Your task to perform on an android device: check the backup settings in the google photos Image 0: 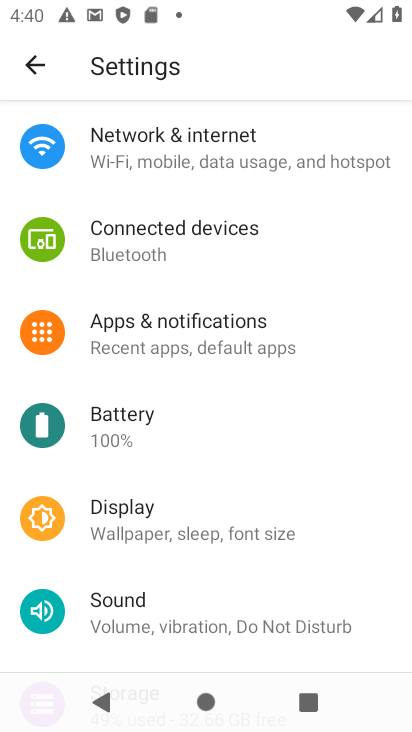
Step 0: press home button
Your task to perform on an android device: check the backup settings in the google photos Image 1: 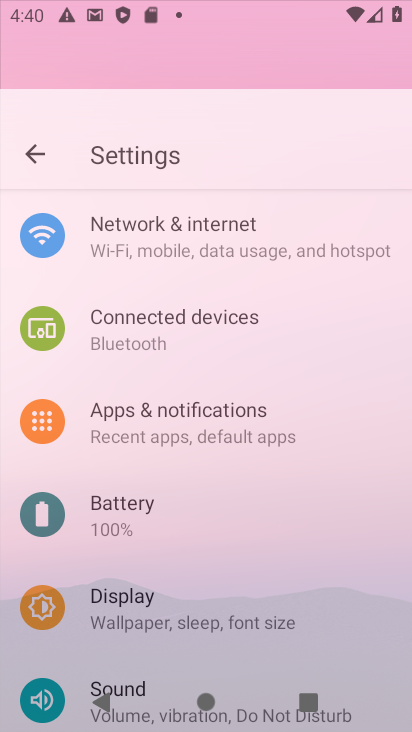
Step 1: drag from (131, 551) to (111, 98)
Your task to perform on an android device: check the backup settings in the google photos Image 2: 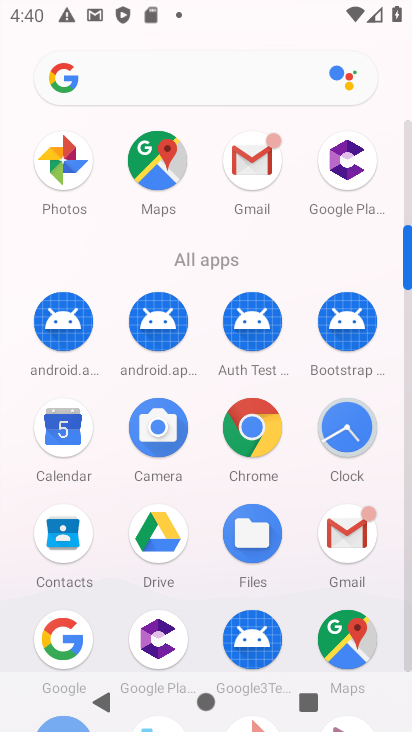
Step 2: drag from (209, 608) to (212, 366)
Your task to perform on an android device: check the backup settings in the google photos Image 3: 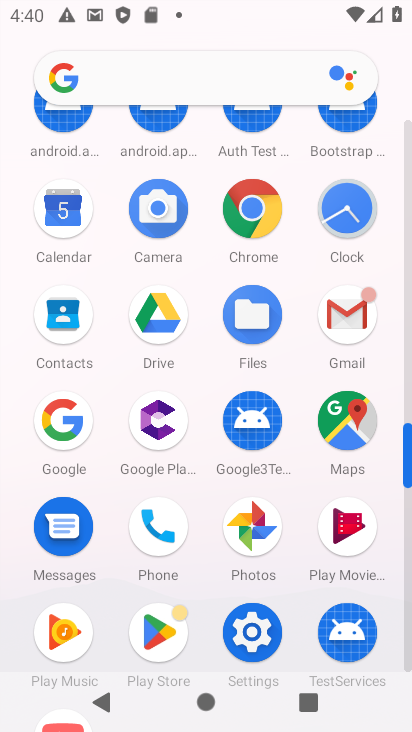
Step 3: drag from (206, 586) to (213, 324)
Your task to perform on an android device: check the backup settings in the google photos Image 4: 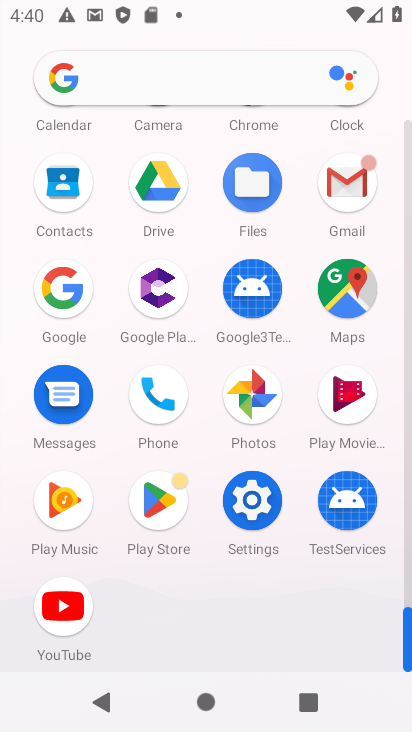
Step 4: click (257, 387)
Your task to perform on an android device: check the backup settings in the google photos Image 5: 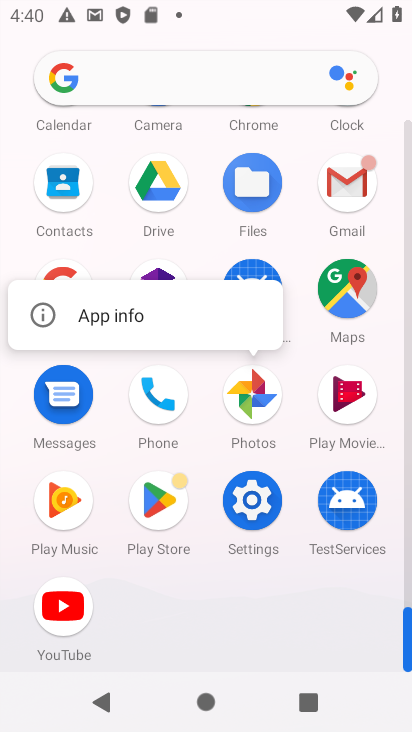
Step 5: click (162, 316)
Your task to perform on an android device: check the backup settings in the google photos Image 6: 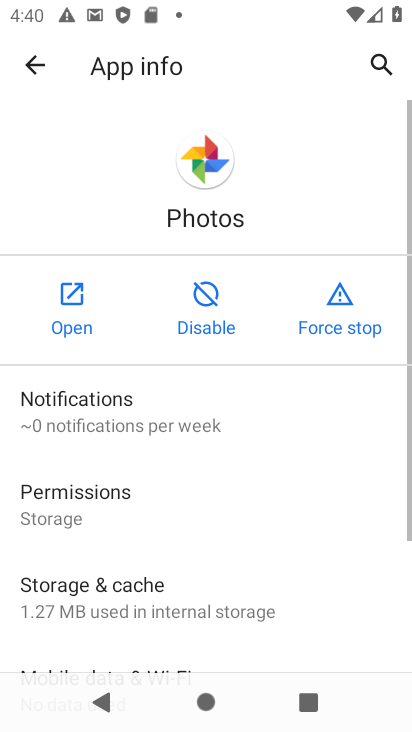
Step 6: click (66, 323)
Your task to perform on an android device: check the backup settings in the google photos Image 7: 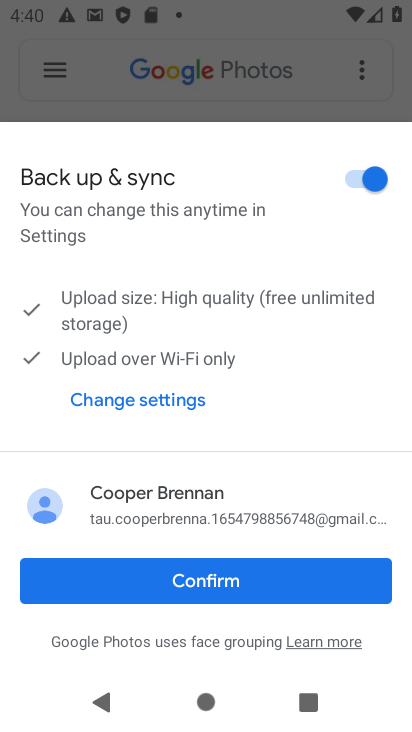
Step 7: drag from (168, 517) to (192, 344)
Your task to perform on an android device: check the backup settings in the google photos Image 8: 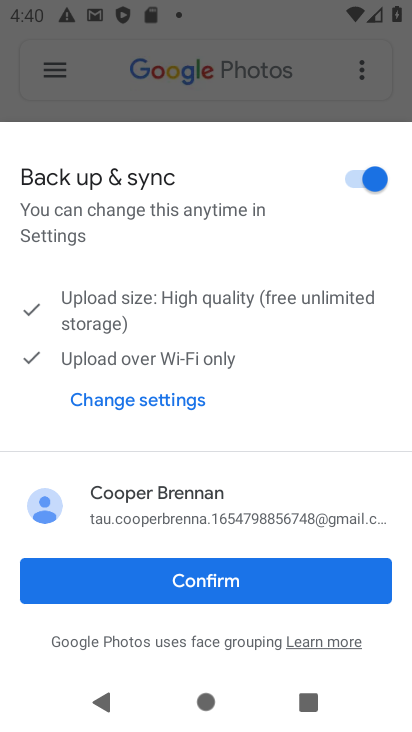
Step 8: click (172, 572)
Your task to perform on an android device: check the backup settings in the google photos Image 9: 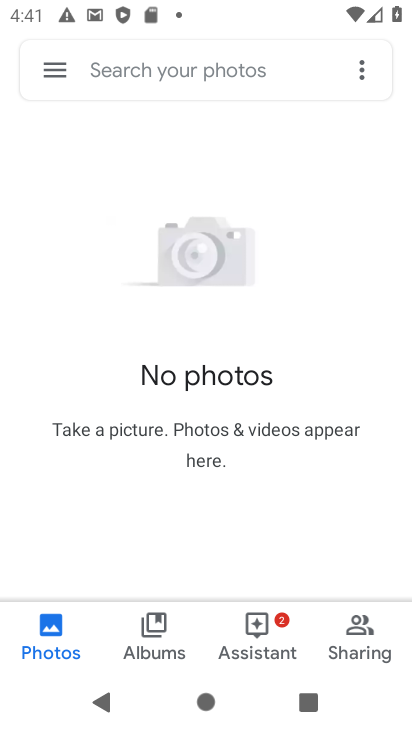
Step 9: drag from (251, 414) to (233, 231)
Your task to perform on an android device: check the backup settings in the google photos Image 10: 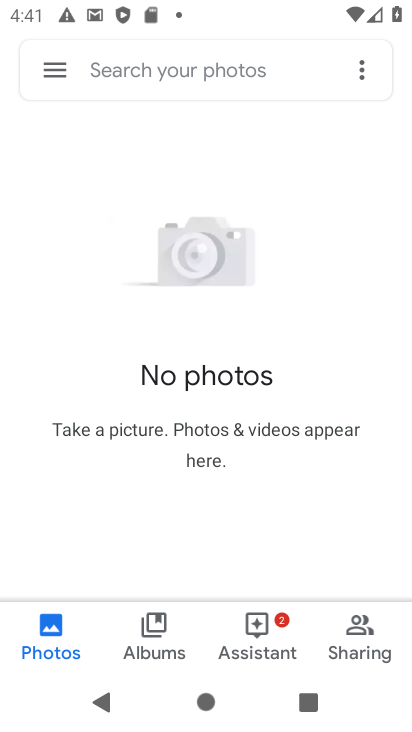
Step 10: drag from (184, 459) to (230, 253)
Your task to perform on an android device: check the backup settings in the google photos Image 11: 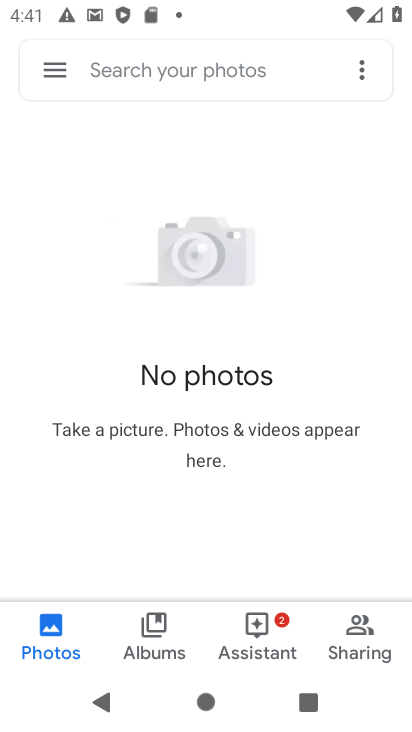
Step 11: drag from (192, 182) to (233, 450)
Your task to perform on an android device: check the backup settings in the google photos Image 12: 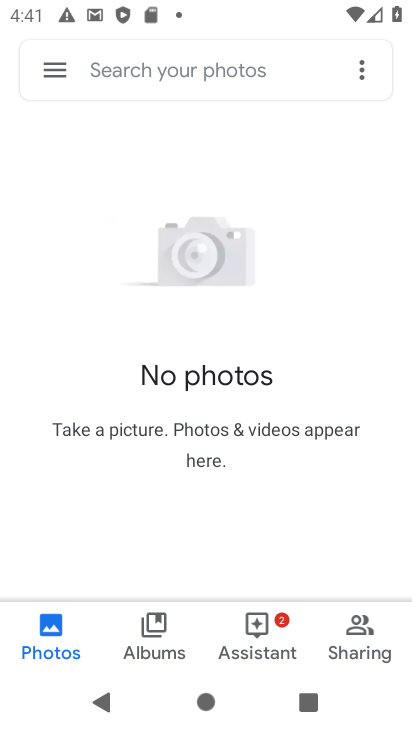
Step 12: drag from (170, 378) to (183, 248)
Your task to perform on an android device: check the backup settings in the google photos Image 13: 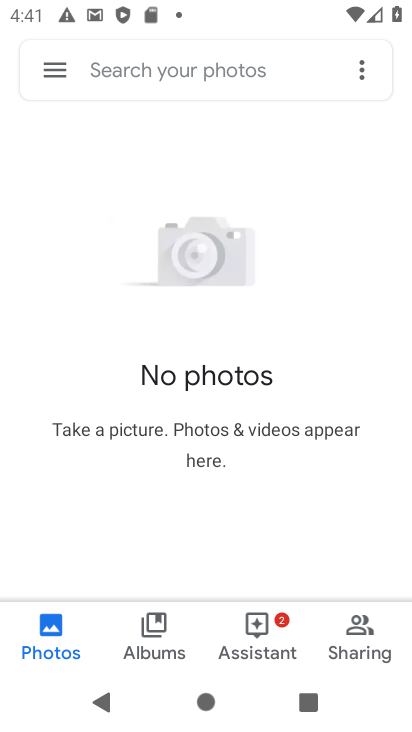
Step 13: click (57, 76)
Your task to perform on an android device: check the backup settings in the google photos Image 14: 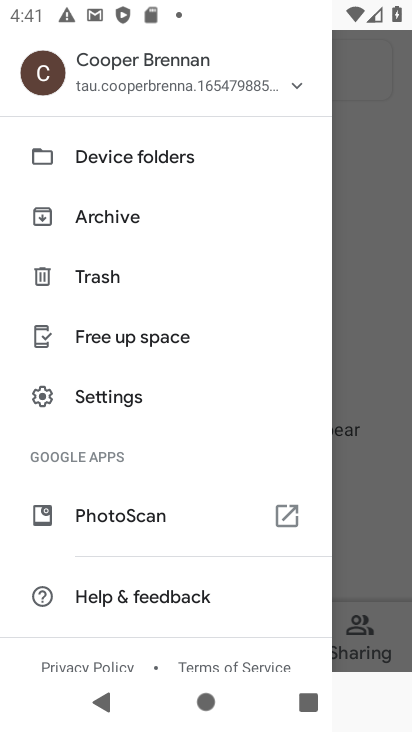
Step 14: drag from (132, 593) to (130, 219)
Your task to perform on an android device: check the backup settings in the google photos Image 15: 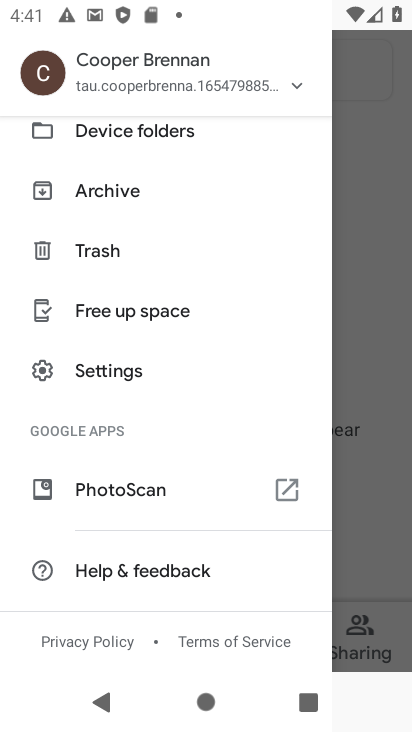
Step 15: drag from (147, 207) to (236, 728)
Your task to perform on an android device: check the backup settings in the google photos Image 16: 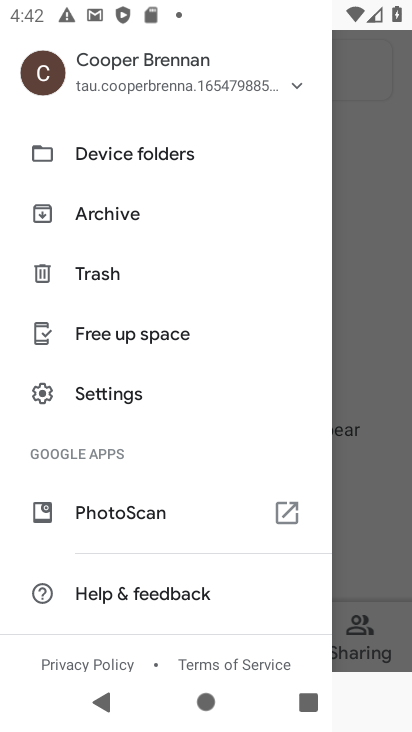
Step 16: click (113, 393)
Your task to perform on an android device: check the backup settings in the google photos Image 17: 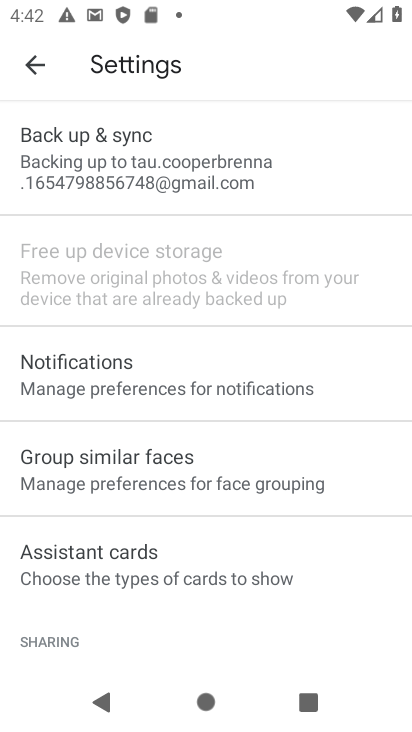
Step 17: click (166, 181)
Your task to perform on an android device: check the backup settings in the google photos Image 18: 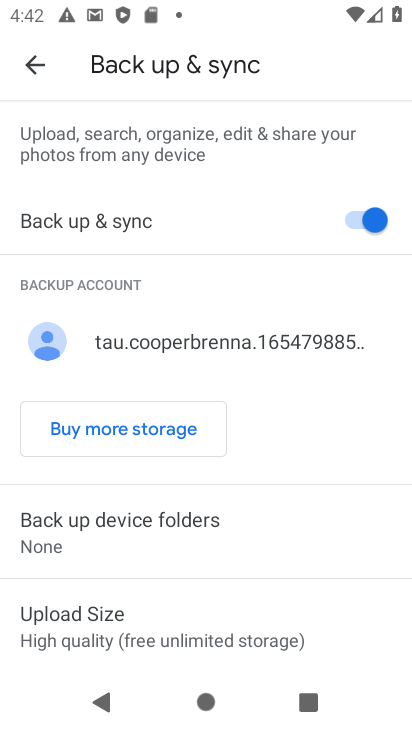
Step 18: task complete